Your task to perform on an android device: star an email in the gmail app Image 0: 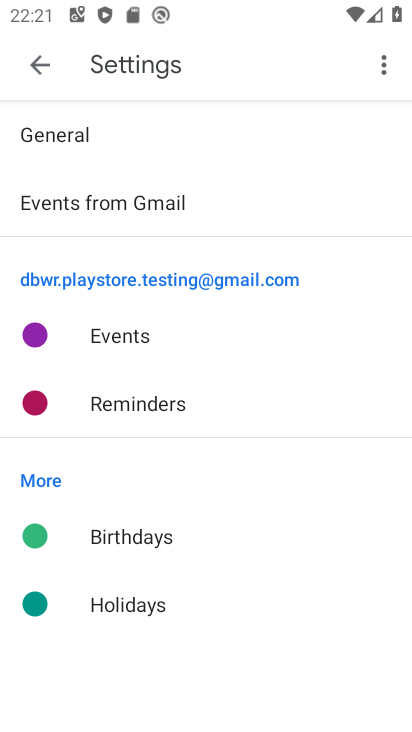
Step 0: press home button
Your task to perform on an android device: star an email in the gmail app Image 1: 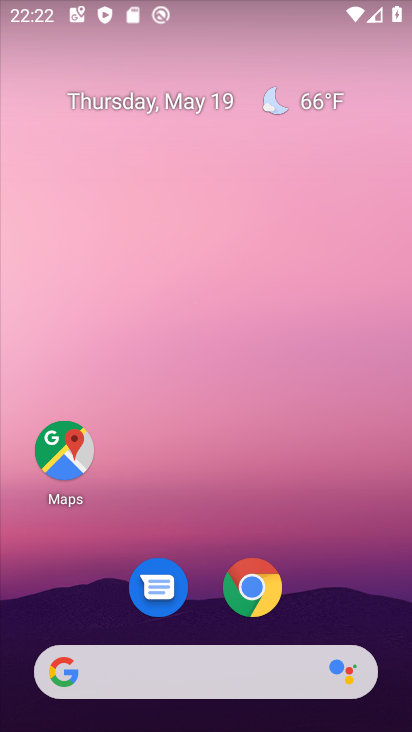
Step 1: drag from (224, 701) to (241, 305)
Your task to perform on an android device: star an email in the gmail app Image 2: 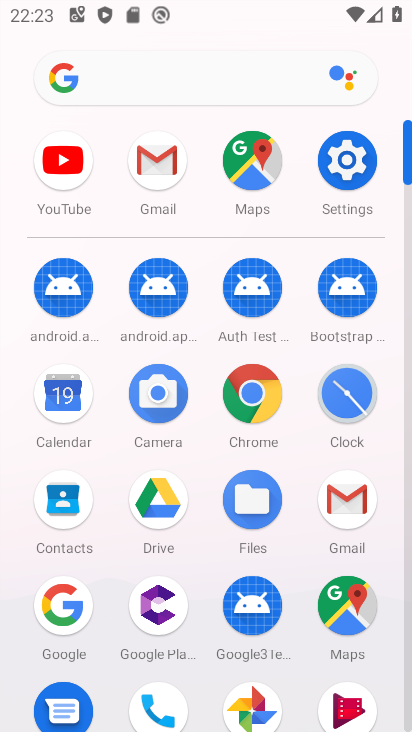
Step 2: click (146, 149)
Your task to perform on an android device: star an email in the gmail app Image 3: 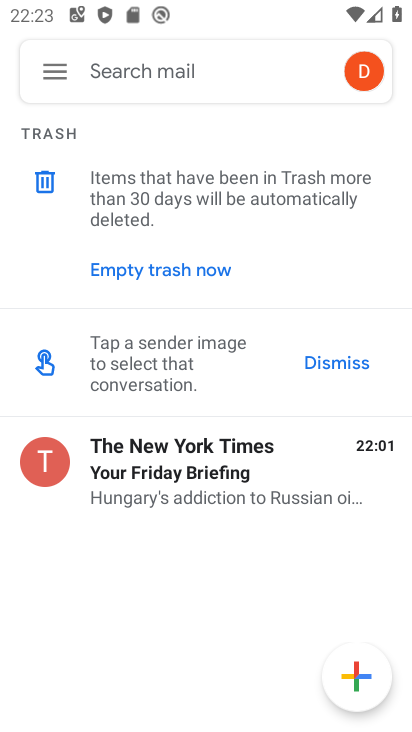
Step 3: click (336, 360)
Your task to perform on an android device: star an email in the gmail app Image 4: 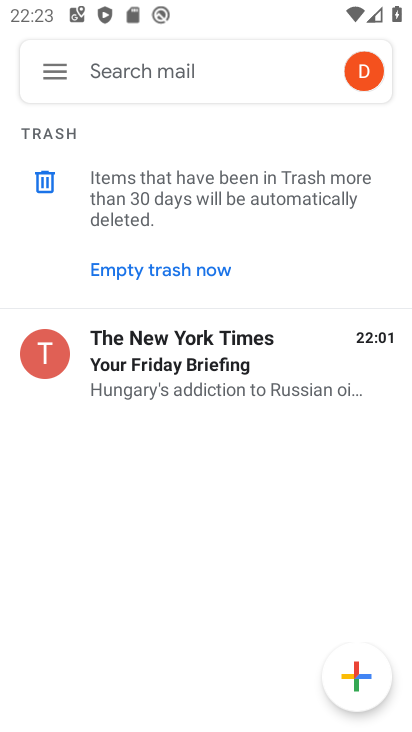
Step 4: click (42, 76)
Your task to perform on an android device: star an email in the gmail app Image 5: 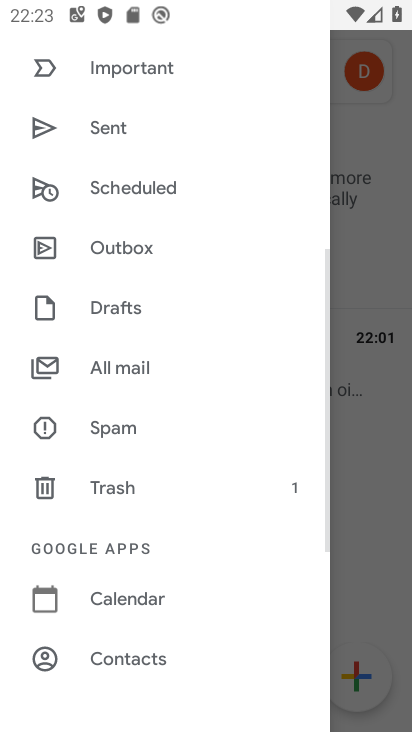
Step 5: drag from (118, 159) to (243, 462)
Your task to perform on an android device: star an email in the gmail app Image 6: 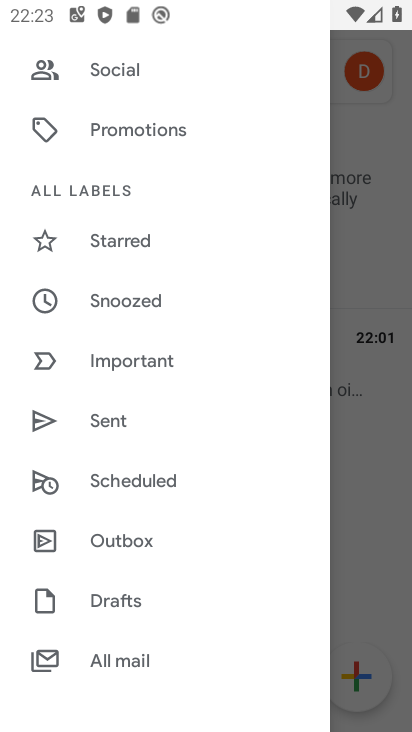
Step 6: click (120, 246)
Your task to perform on an android device: star an email in the gmail app Image 7: 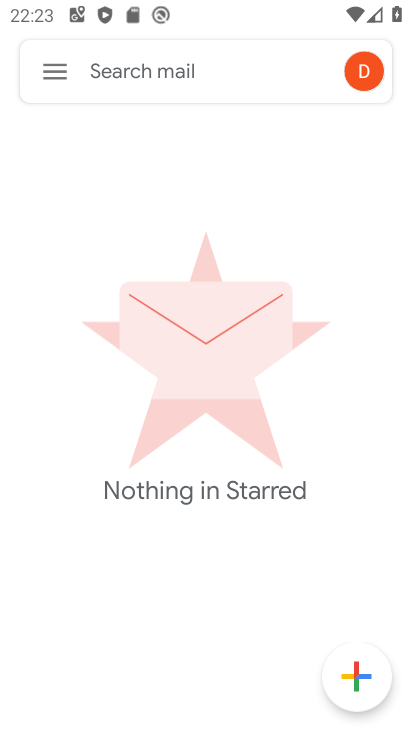
Step 7: task complete